Your task to perform on an android device: uninstall "DuckDuckGo Privacy Browser" Image 0: 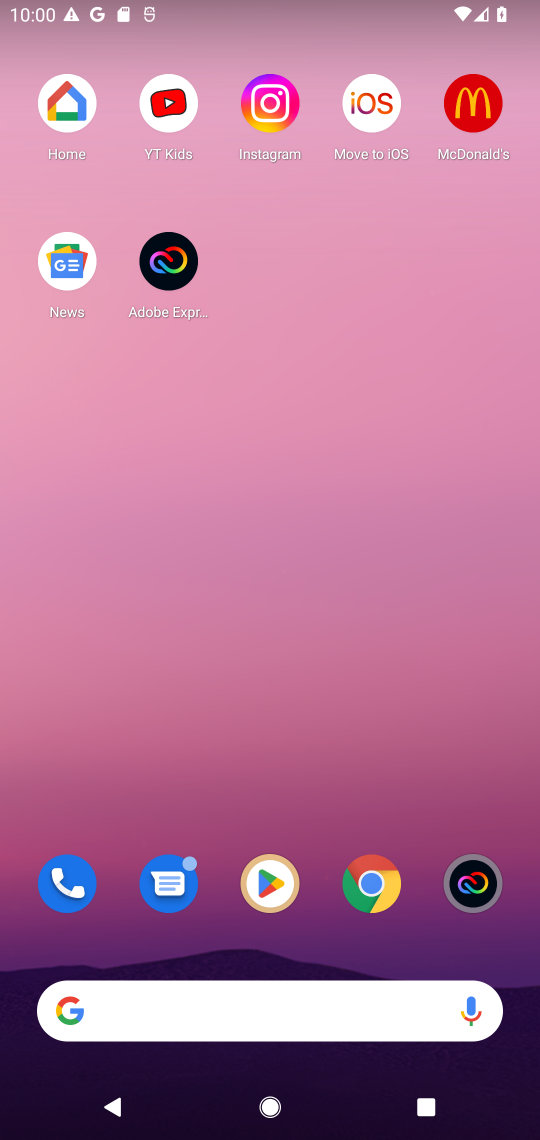
Step 0: press home button
Your task to perform on an android device: uninstall "DuckDuckGo Privacy Browser" Image 1: 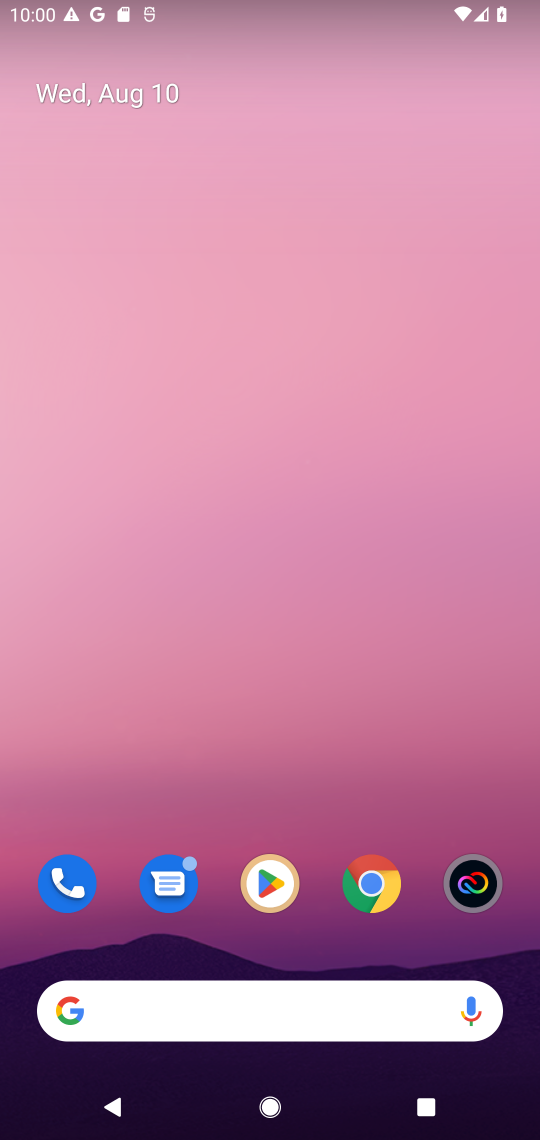
Step 1: drag from (427, 793) to (447, 63)
Your task to perform on an android device: uninstall "DuckDuckGo Privacy Browser" Image 2: 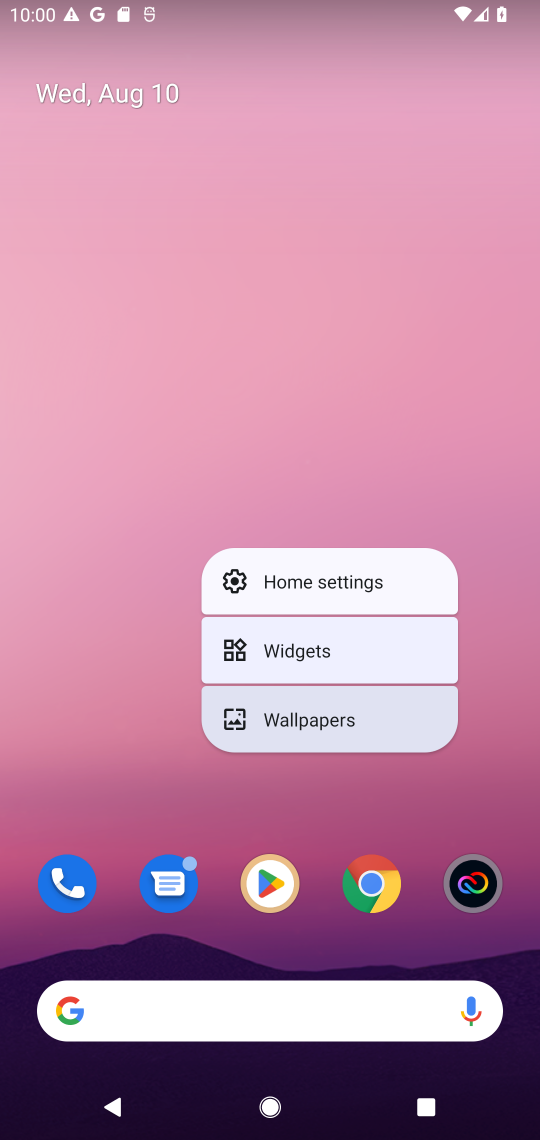
Step 2: click (458, 477)
Your task to perform on an android device: uninstall "DuckDuckGo Privacy Browser" Image 3: 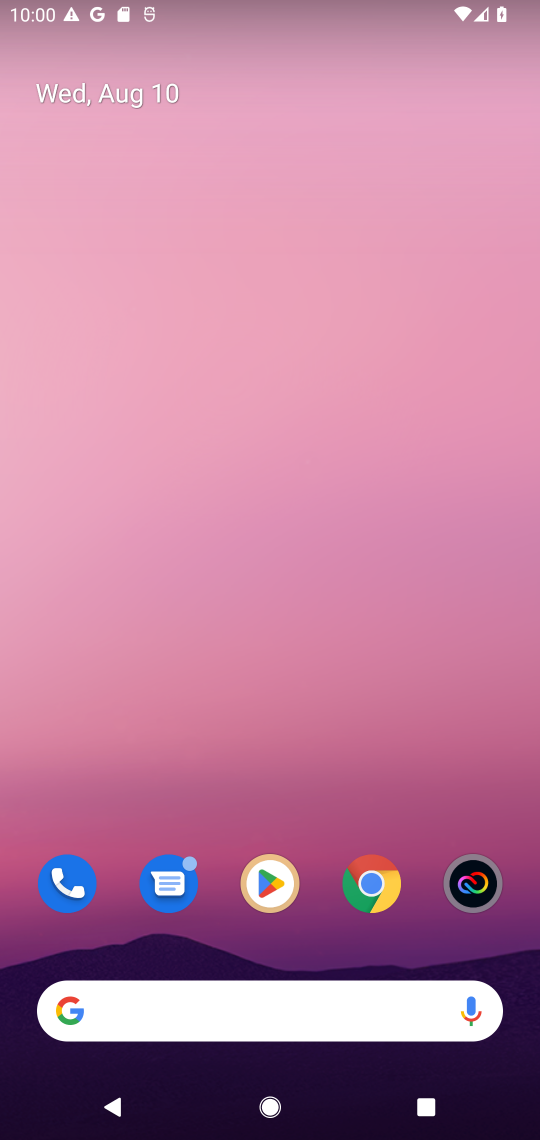
Step 3: drag from (329, 756) to (324, 19)
Your task to perform on an android device: uninstall "DuckDuckGo Privacy Browser" Image 4: 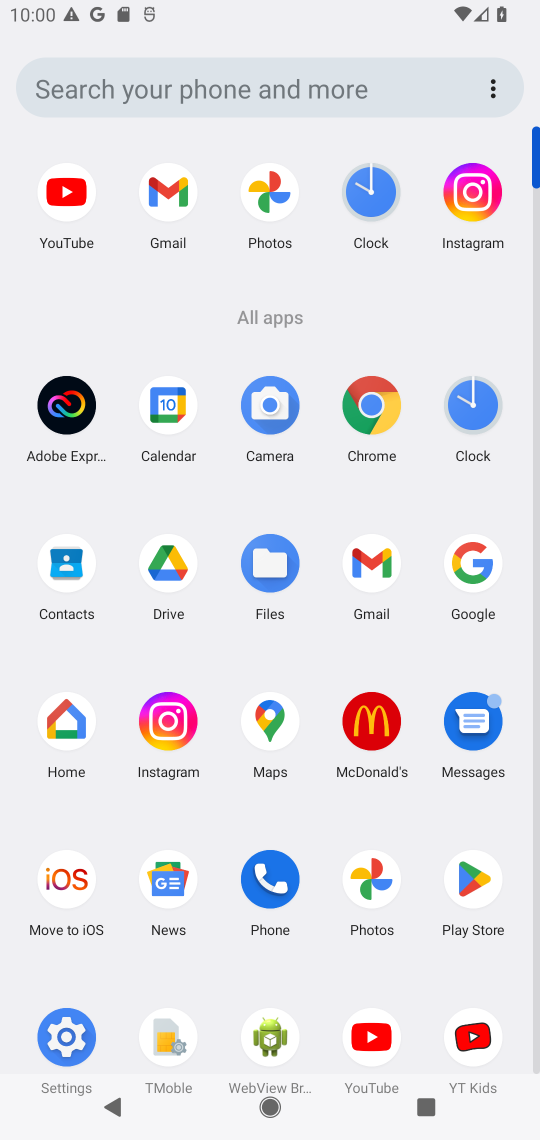
Step 4: click (468, 874)
Your task to perform on an android device: uninstall "DuckDuckGo Privacy Browser" Image 5: 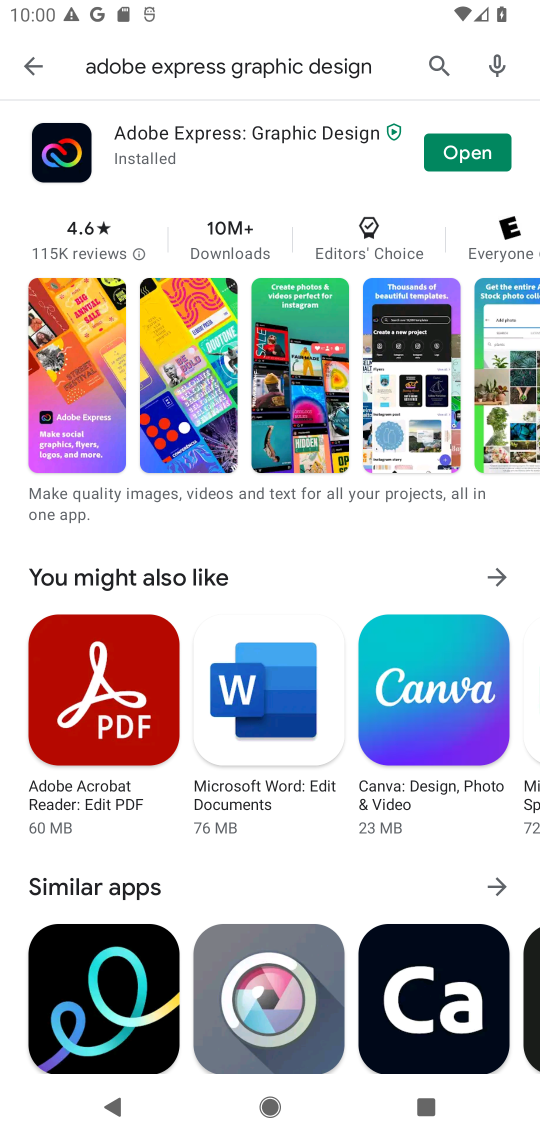
Step 5: click (434, 51)
Your task to perform on an android device: uninstall "DuckDuckGo Privacy Browser" Image 6: 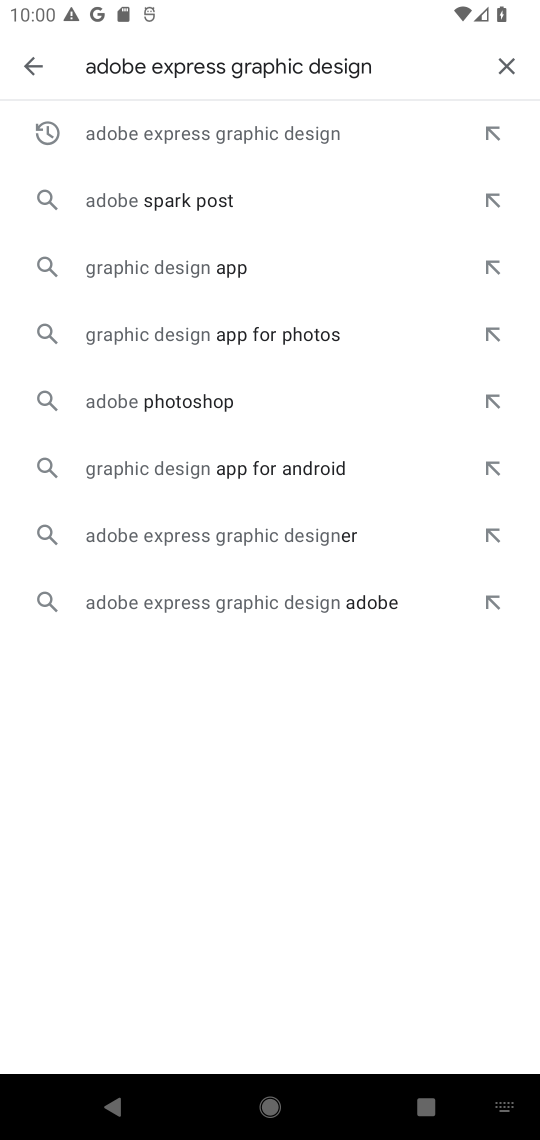
Step 6: click (503, 69)
Your task to perform on an android device: uninstall "DuckDuckGo Privacy Browser" Image 7: 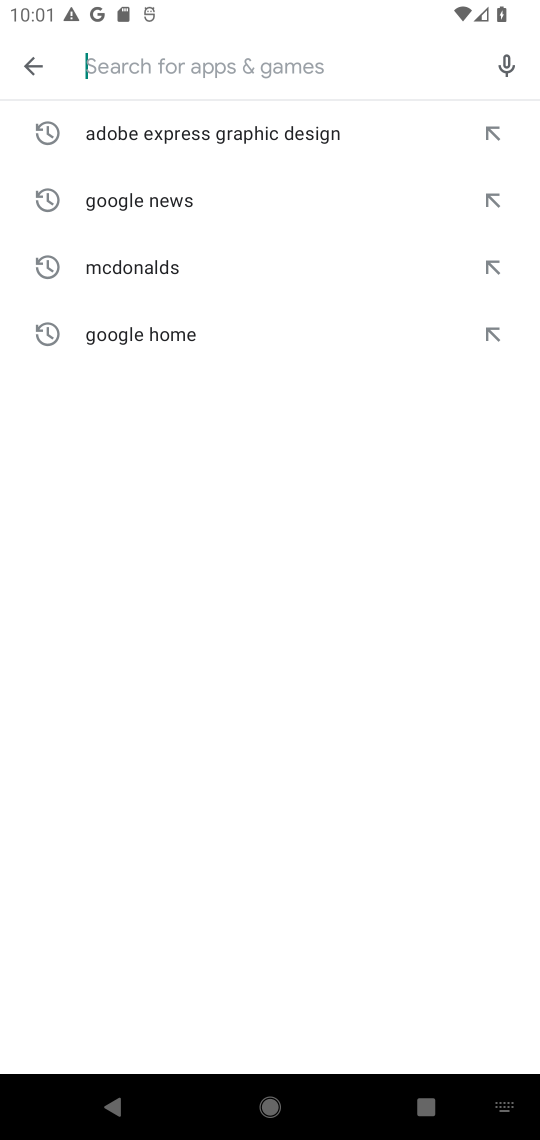
Step 7: type "DuckDuckGo Privacy Browser"
Your task to perform on an android device: uninstall "DuckDuckGo Privacy Browser" Image 8: 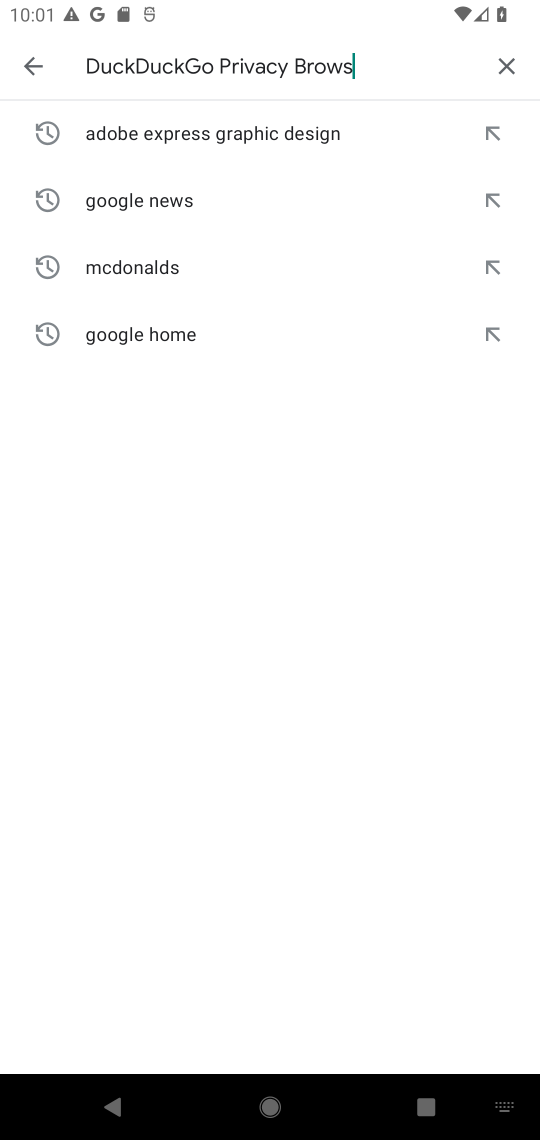
Step 8: press enter
Your task to perform on an android device: uninstall "DuckDuckGo Privacy Browser" Image 9: 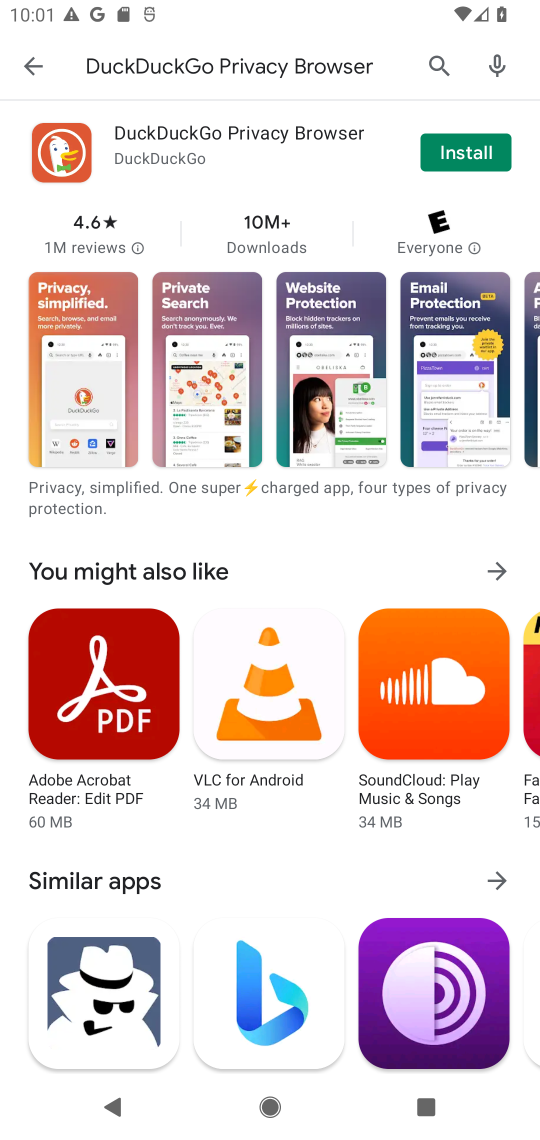
Step 9: click (453, 162)
Your task to perform on an android device: uninstall "DuckDuckGo Privacy Browser" Image 10: 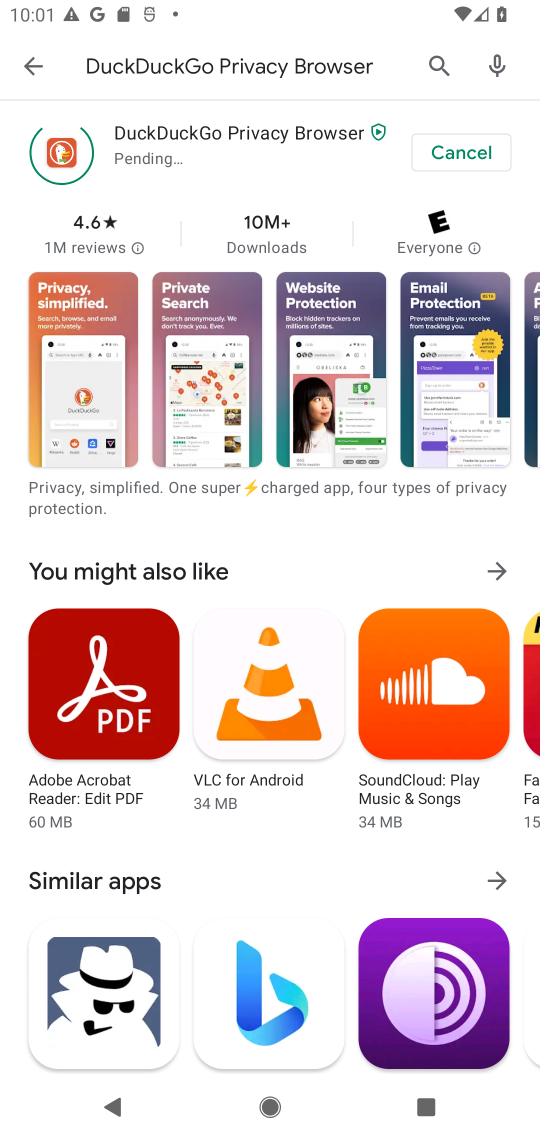
Step 10: task complete